Your task to perform on an android device: Open Google Chrome and click the shortcut for Amazon.com Image 0: 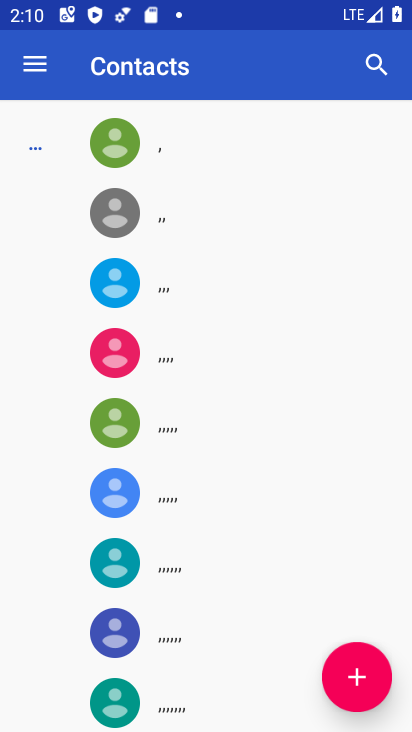
Step 0: press home button
Your task to perform on an android device: Open Google Chrome and click the shortcut for Amazon.com Image 1: 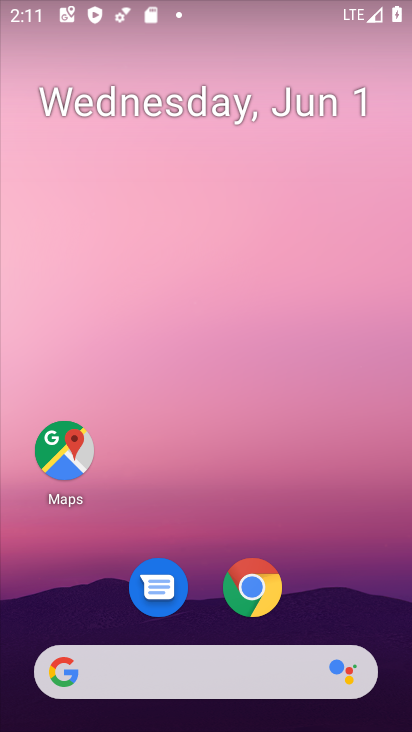
Step 1: click (266, 599)
Your task to perform on an android device: Open Google Chrome and click the shortcut for Amazon.com Image 2: 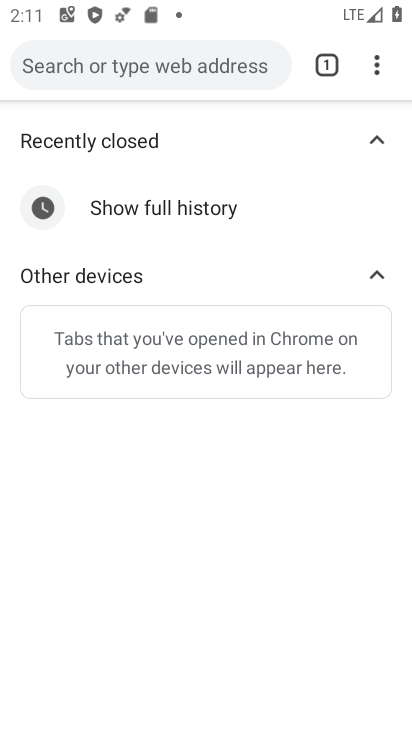
Step 2: press back button
Your task to perform on an android device: Open Google Chrome and click the shortcut for Amazon.com Image 3: 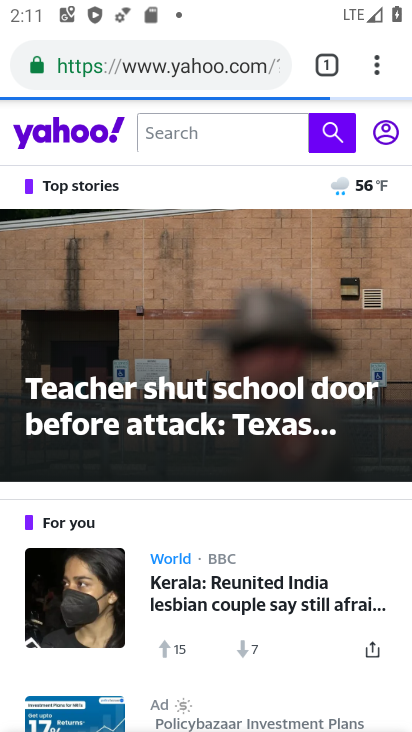
Step 3: click (318, 72)
Your task to perform on an android device: Open Google Chrome and click the shortcut for Amazon.com Image 4: 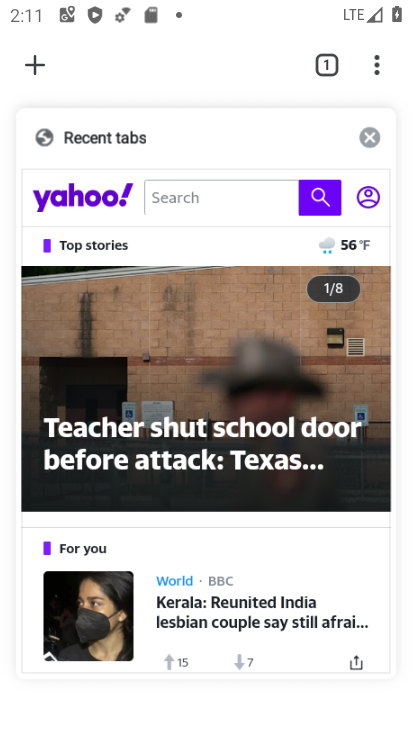
Step 4: click (24, 67)
Your task to perform on an android device: Open Google Chrome and click the shortcut for Amazon.com Image 5: 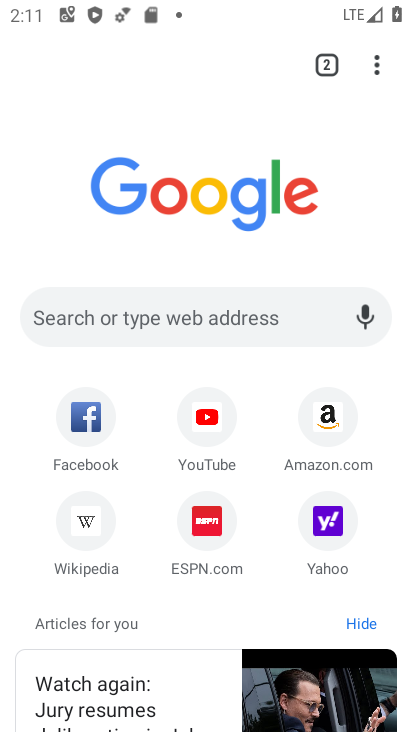
Step 5: click (344, 436)
Your task to perform on an android device: Open Google Chrome and click the shortcut for Amazon.com Image 6: 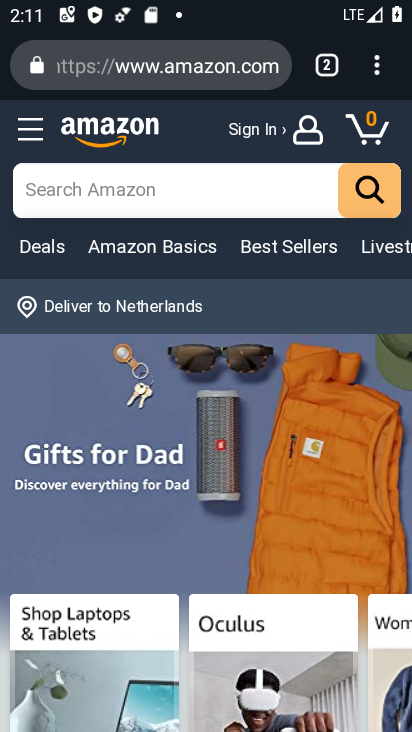
Step 6: task complete